Your task to perform on an android device: allow cookies in the chrome app Image 0: 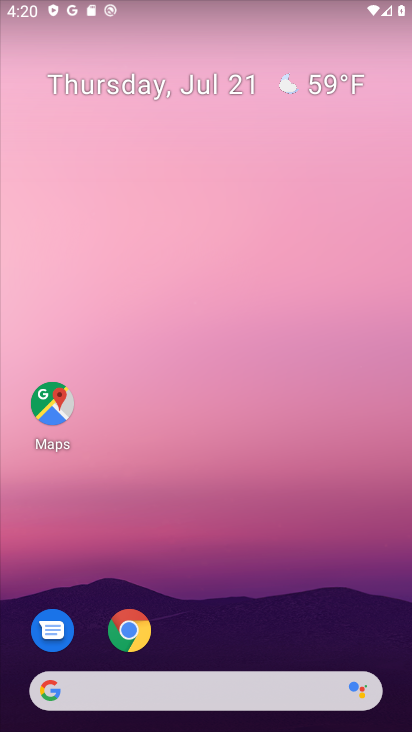
Step 0: drag from (345, 690) to (279, 255)
Your task to perform on an android device: allow cookies in the chrome app Image 1: 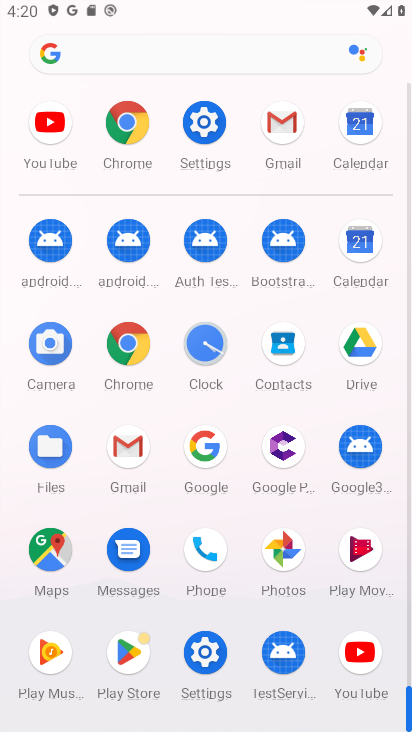
Step 1: click (138, 128)
Your task to perform on an android device: allow cookies in the chrome app Image 2: 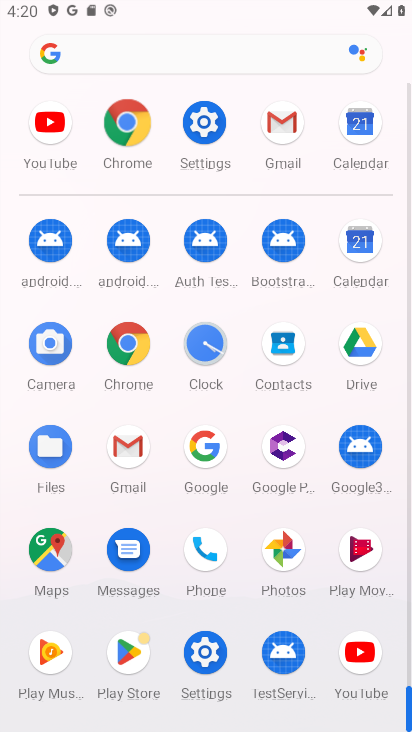
Step 2: click (137, 127)
Your task to perform on an android device: allow cookies in the chrome app Image 3: 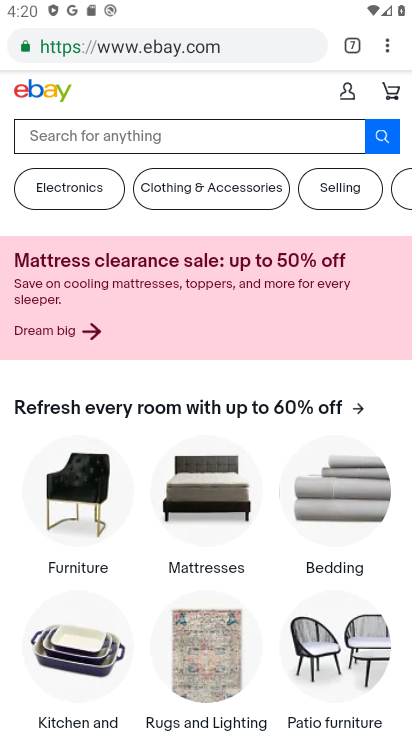
Step 3: click (391, 53)
Your task to perform on an android device: allow cookies in the chrome app Image 4: 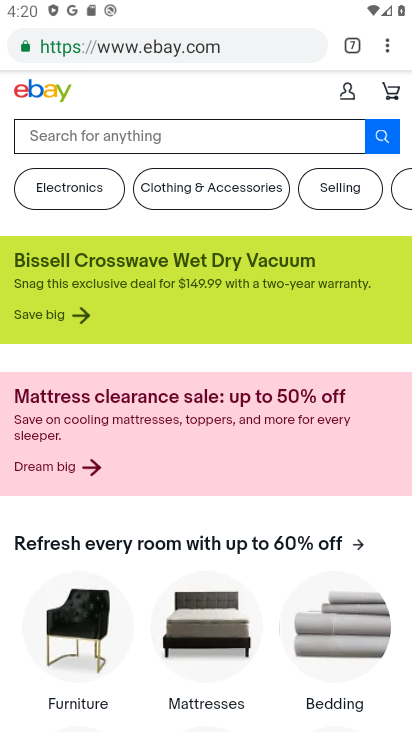
Step 4: drag from (392, 48) to (218, 552)
Your task to perform on an android device: allow cookies in the chrome app Image 5: 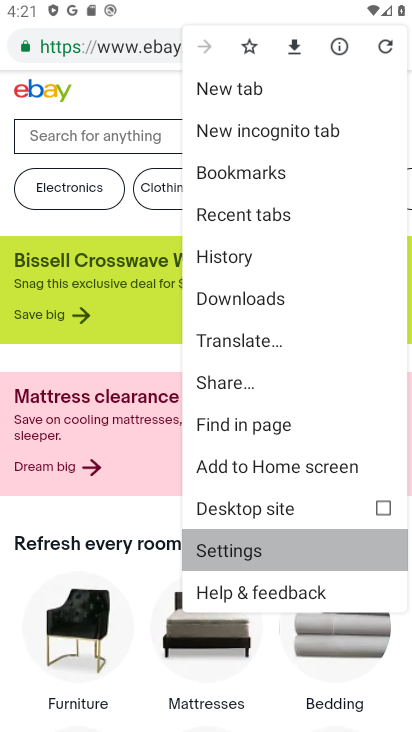
Step 5: click (218, 552)
Your task to perform on an android device: allow cookies in the chrome app Image 6: 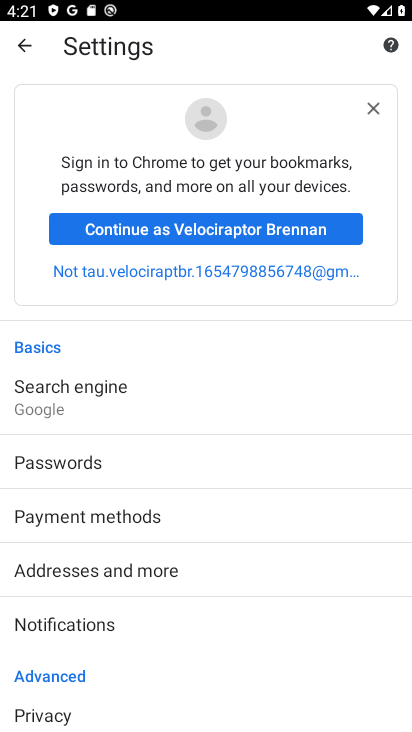
Step 6: click (376, 113)
Your task to perform on an android device: allow cookies in the chrome app Image 7: 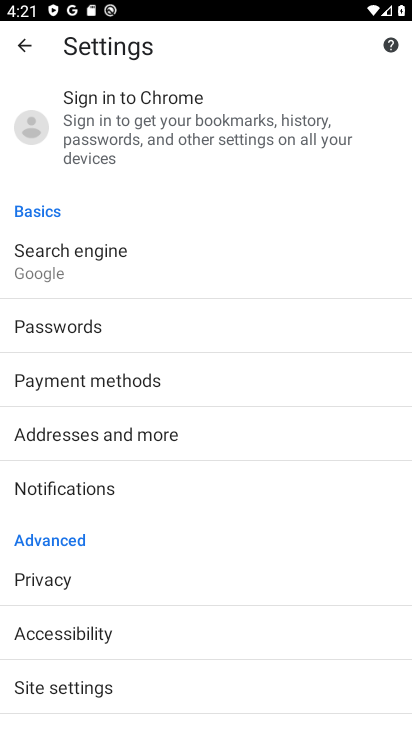
Step 7: drag from (127, 587) to (122, 186)
Your task to perform on an android device: allow cookies in the chrome app Image 8: 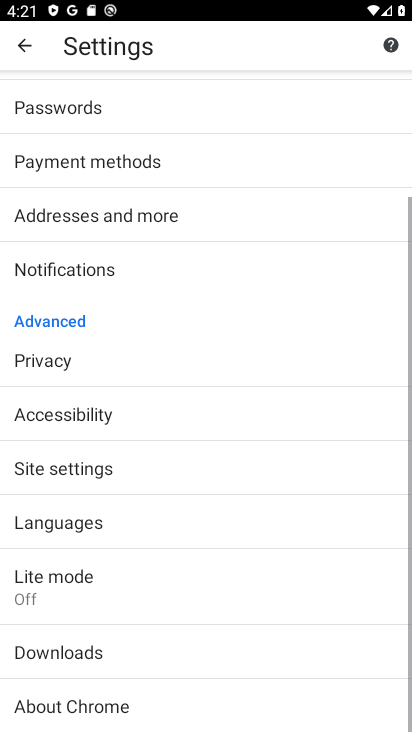
Step 8: drag from (128, 484) to (124, 285)
Your task to perform on an android device: allow cookies in the chrome app Image 9: 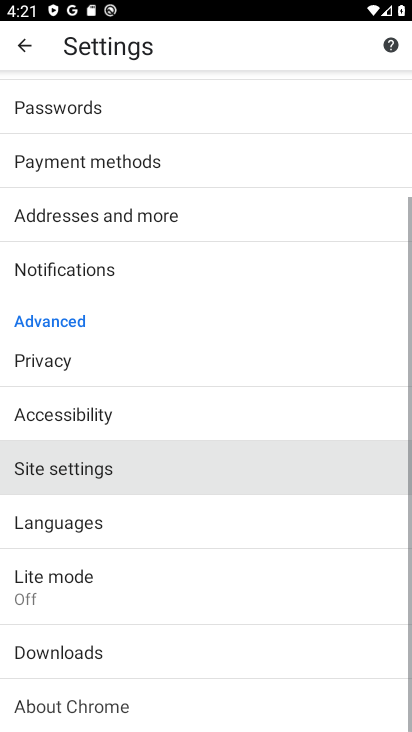
Step 9: drag from (123, 474) to (123, 269)
Your task to perform on an android device: allow cookies in the chrome app Image 10: 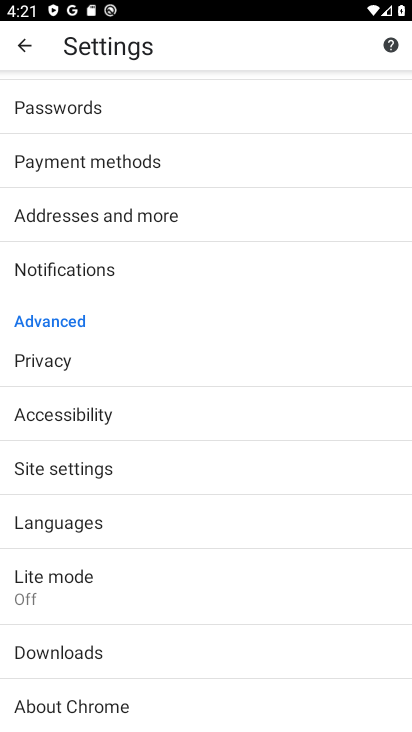
Step 10: click (54, 467)
Your task to perform on an android device: allow cookies in the chrome app Image 11: 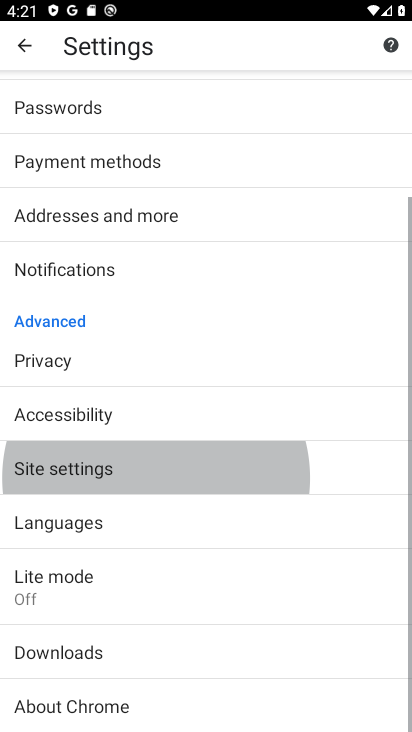
Step 11: click (54, 467)
Your task to perform on an android device: allow cookies in the chrome app Image 12: 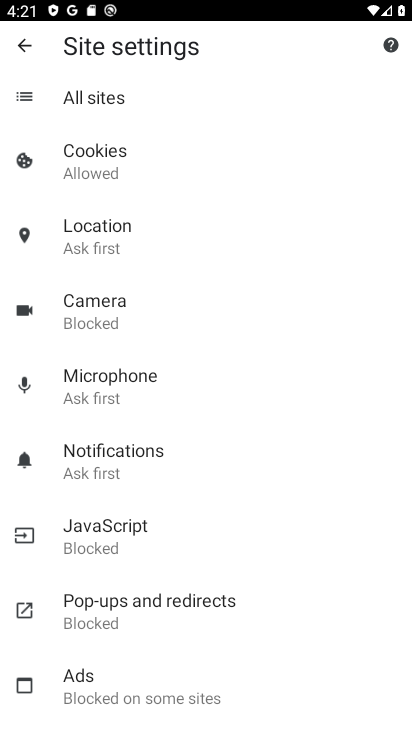
Step 12: click (81, 162)
Your task to perform on an android device: allow cookies in the chrome app Image 13: 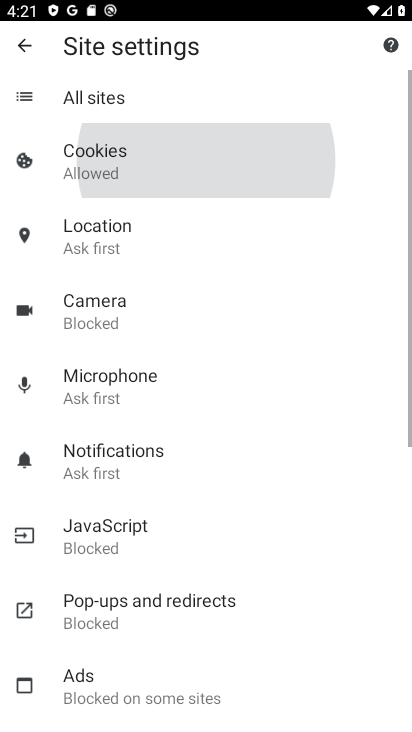
Step 13: click (83, 163)
Your task to perform on an android device: allow cookies in the chrome app Image 14: 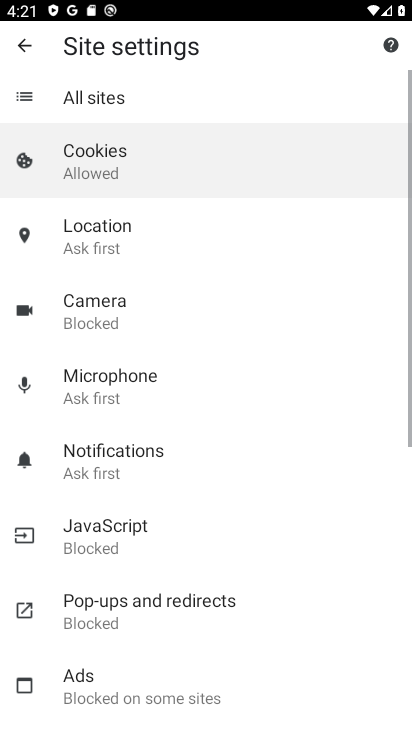
Step 14: click (93, 158)
Your task to perform on an android device: allow cookies in the chrome app Image 15: 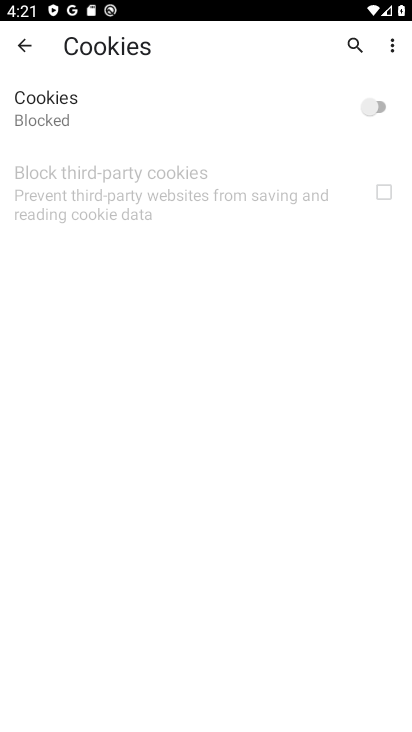
Step 15: click (377, 106)
Your task to perform on an android device: allow cookies in the chrome app Image 16: 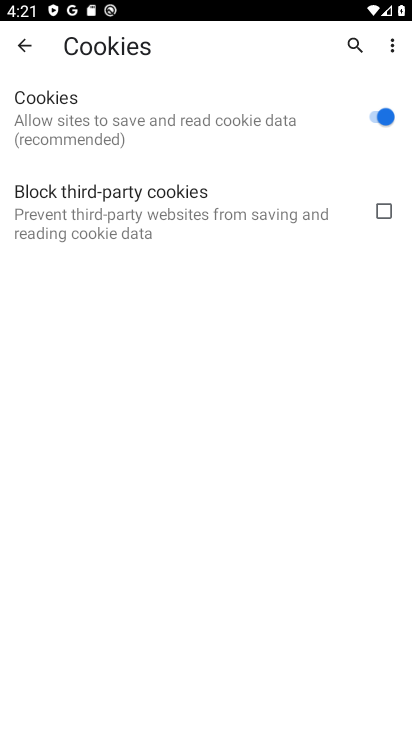
Step 16: task complete